Your task to perform on an android device: turn on the 12-hour format for clock Image 0: 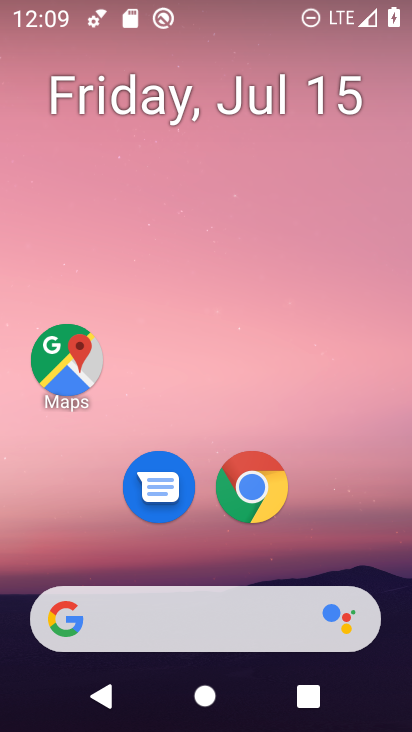
Step 0: press home button
Your task to perform on an android device: turn on the 12-hour format for clock Image 1: 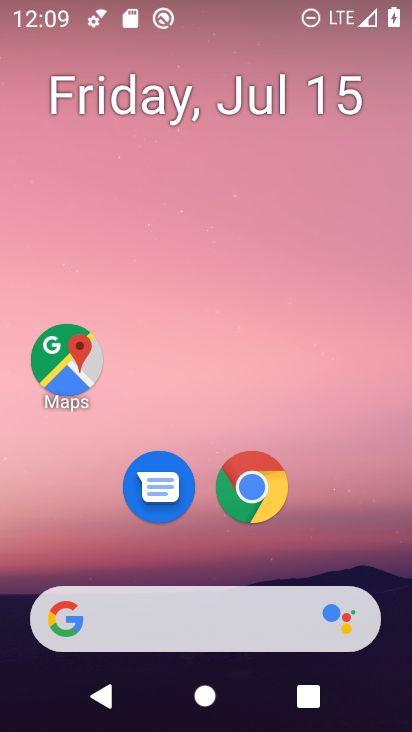
Step 1: drag from (265, 562) to (248, 53)
Your task to perform on an android device: turn on the 12-hour format for clock Image 2: 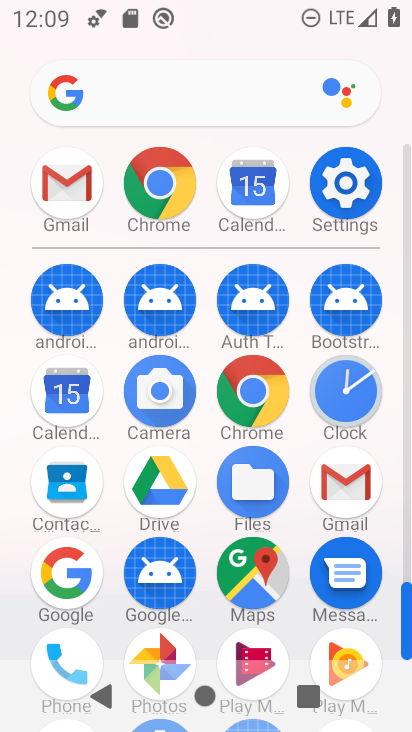
Step 2: drag from (226, 452) to (227, 41)
Your task to perform on an android device: turn on the 12-hour format for clock Image 3: 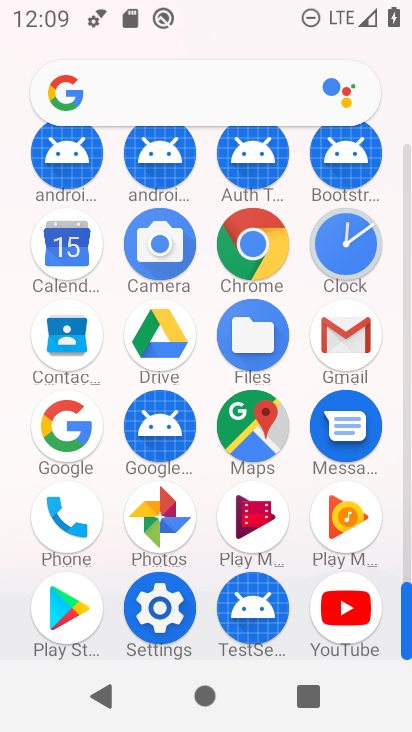
Step 3: click (353, 259)
Your task to perform on an android device: turn on the 12-hour format for clock Image 4: 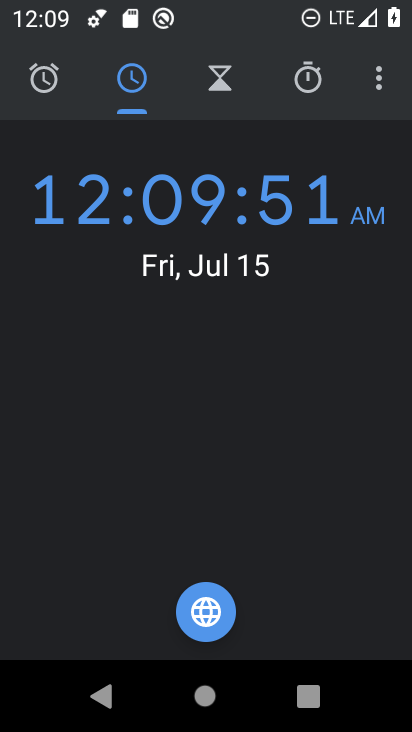
Step 4: click (385, 80)
Your task to perform on an android device: turn on the 12-hour format for clock Image 5: 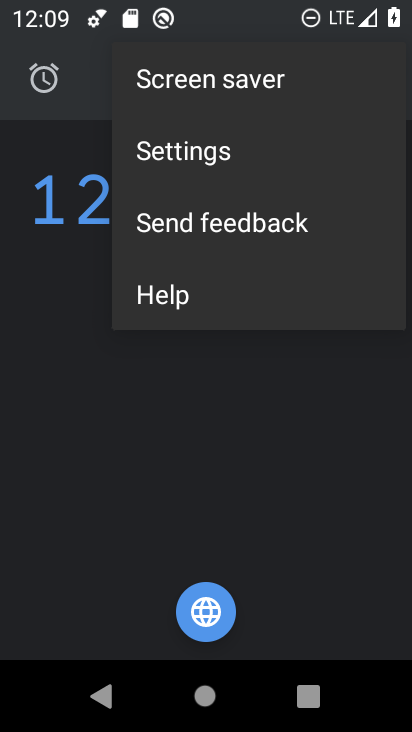
Step 5: click (197, 162)
Your task to perform on an android device: turn on the 12-hour format for clock Image 6: 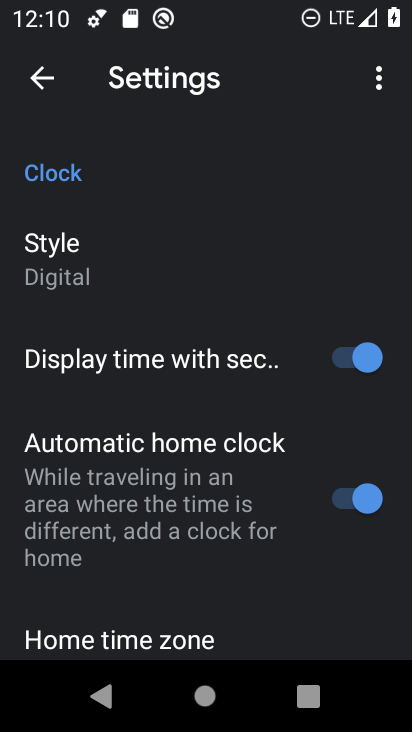
Step 6: drag from (201, 565) to (241, 135)
Your task to perform on an android device: turn on the 12-hour format for clock Image 7: 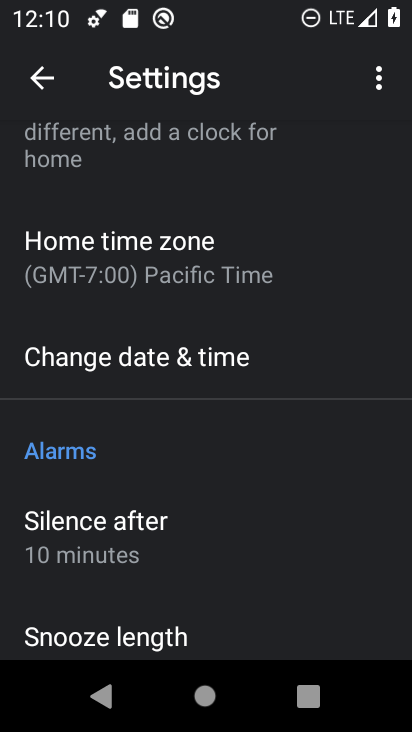
Step 7: click (210, 338)
Your task to perform on an android device: turn on the 12-hour format for clock Image 8: 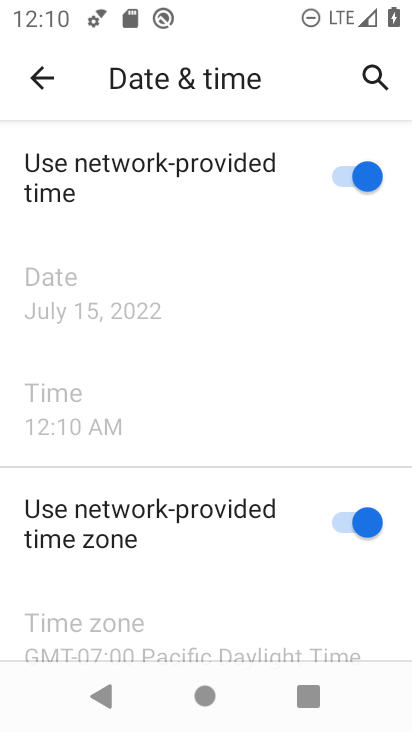
Step 8: task complete